Your task to perform on an android device: open app "Pluto TV - Live TV and Movies" (install if not already installed) and enter user name: "wools@yahoo.com" and password: "misplacing" Image 0: 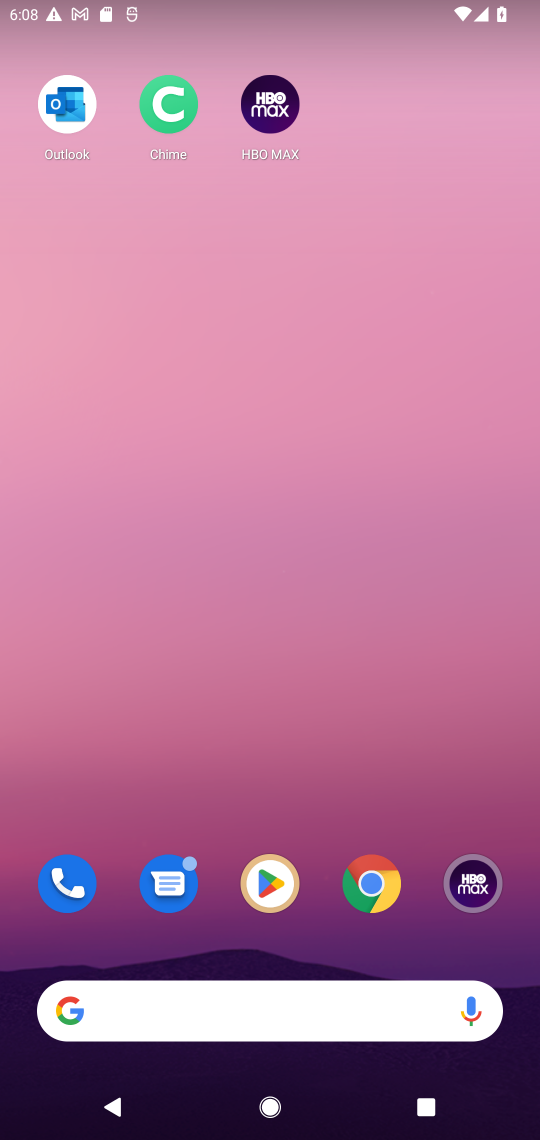
Step 0: click (264, 878)
Your task to perform on an android device: open app "Pluto TV - Live TV and Movies" (install if not already installed) and enter user name: "wools@yahoo.com" and password: "misplacing" Image 1: 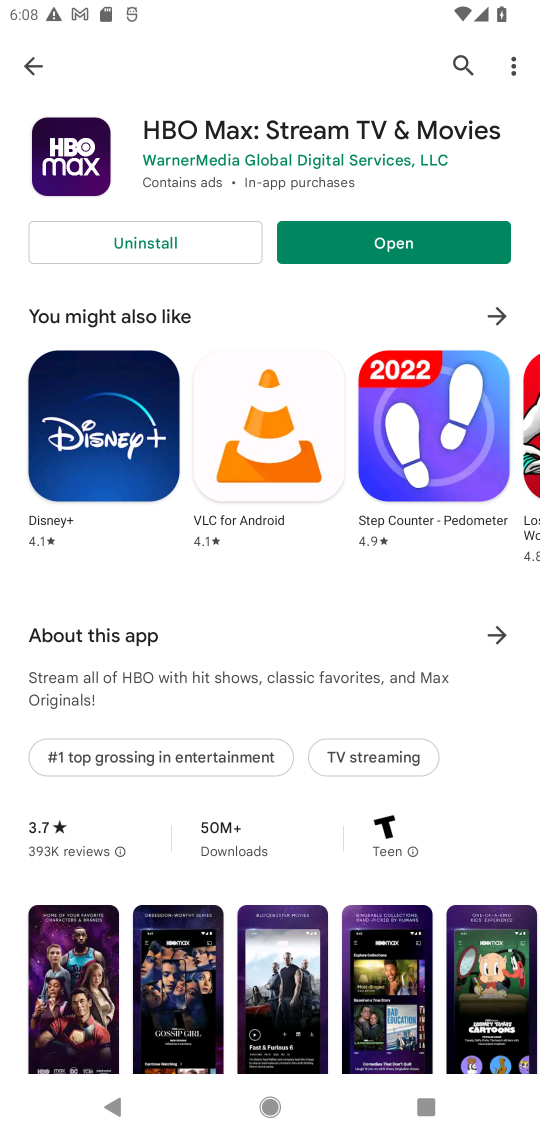
Step 1: click (494, 57)
Your task to perform on an android device: open app "Pluto TV - Live TV and Movies" (install if not already installed) and enter user name: "wools@yahoo.com" and password: "misplacing" Image 2: 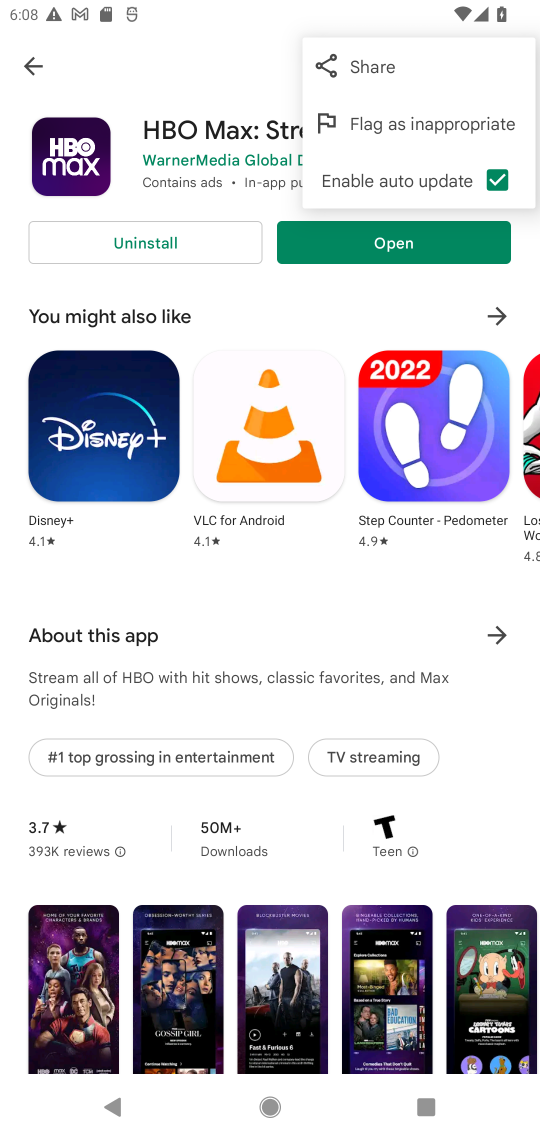
Step 2: click (220, 44)
Your task to perform on an android device: open app "Pluto TV - Live TV and Movies" (install if not already installed) and enter user name: "wools@yahoo.com" and password: "misplacing" Image 3: 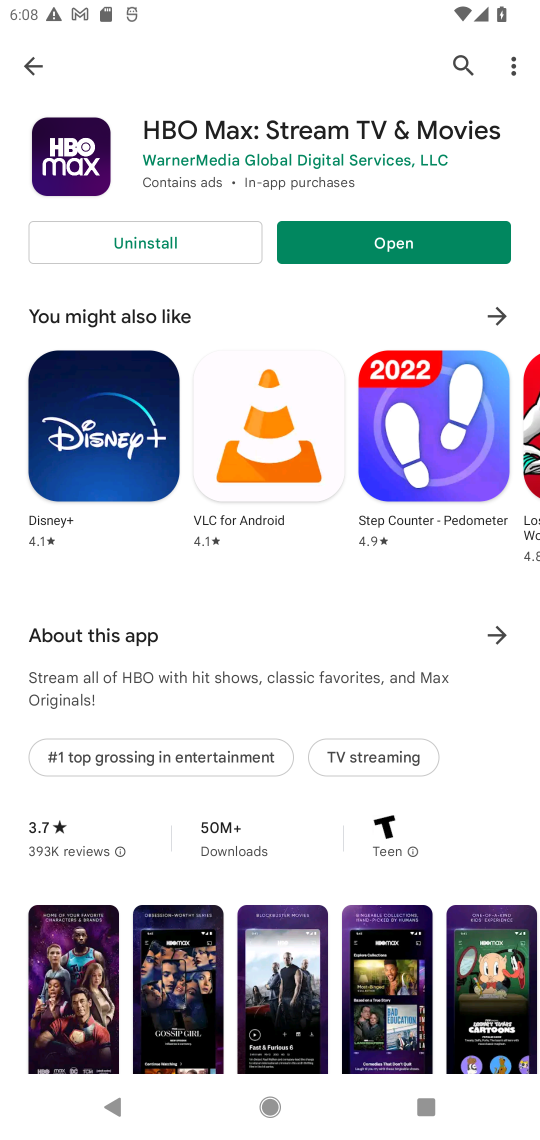
Step 3: click (467, 57)
Your task to perform on an android device: open app "Pluto TV - Live TV and Movies" (install if not already installed) and enter user name: "wools@yahoo.com" and password: "misplacing" Image 4: 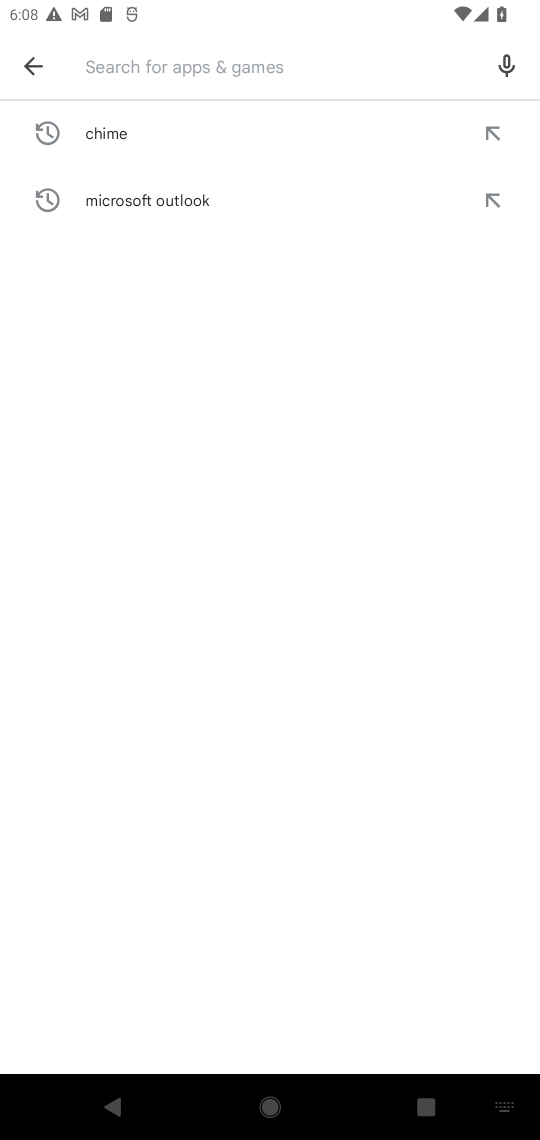
Step 4: type "Pluto TV - Live TV and Movies"
Your task to perform on an android device: open app "Pluto TV - Live TV and Movies" (install if not already installed) and enter user name: "wools@yahoo.com" and password: "misplacing" Image 5: 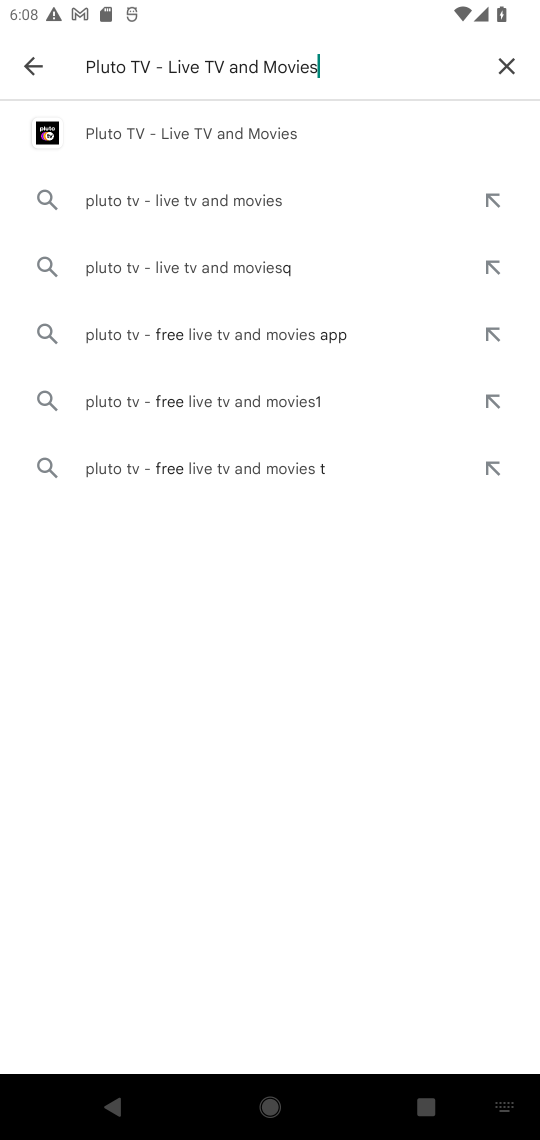
Step 5: click (138, 115)
Your task to perform on an android device: open app "Pluto TV - Live TV and Movies" (install if not already installed) and enter user name: "wools@yahoo.com" and password: "misplacing" Image 6: 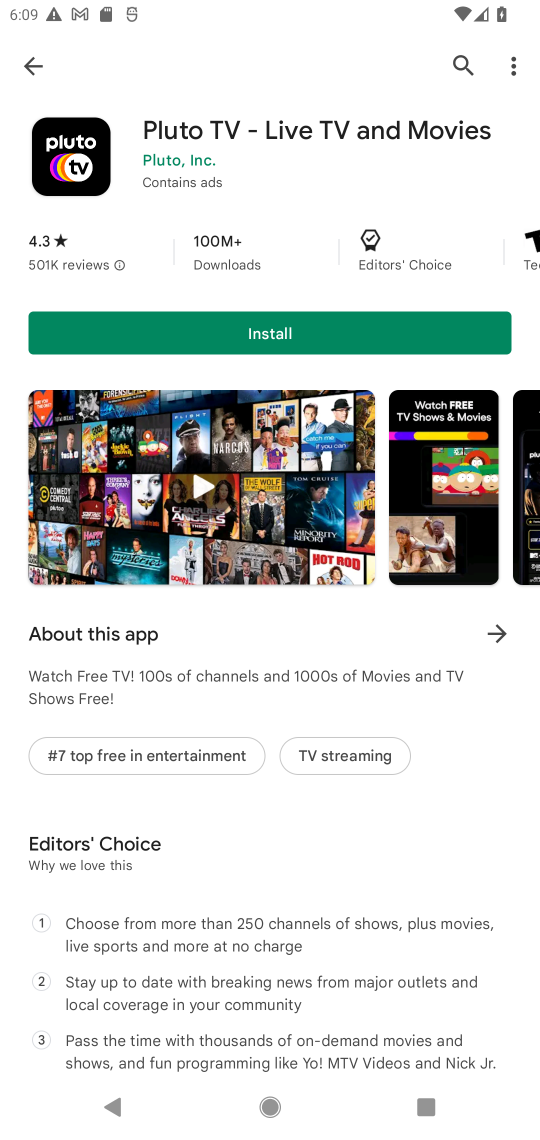
Step 6: click (261, 341)
Your task to perform on an android device: open app "Pluto TV - Live TV and Movies" (install if not already installed) and enter user name: "wools@yahoo.com" and password: "misplacing" Image 7: 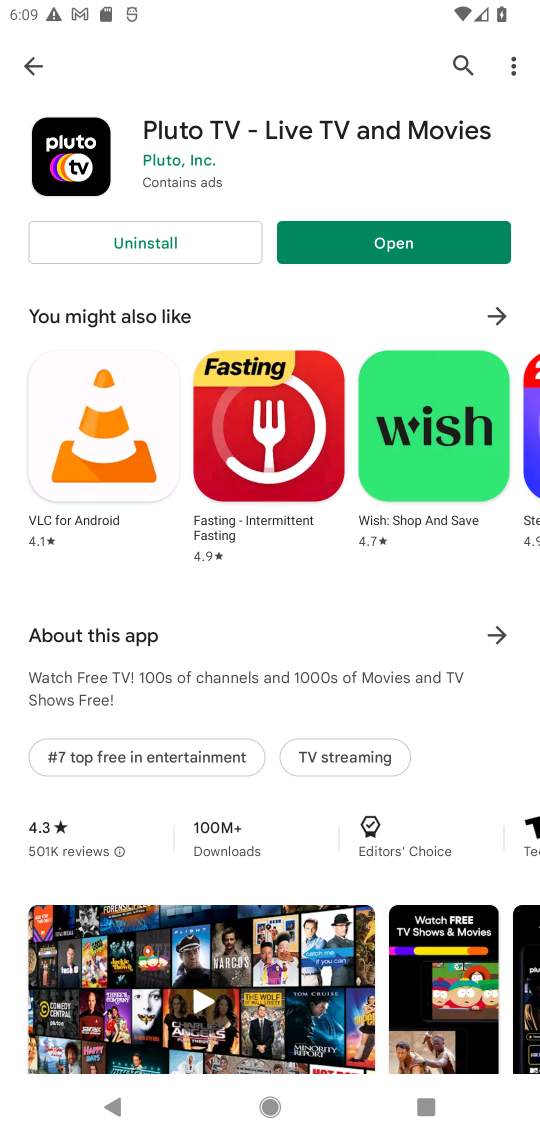
Step 7: click (379, 241)
Your task to perform on an android device: open app "Pluto TV - Live TV and Movies" (install if not already installed) and enter user name: "wools@yahoo.com" and password: "misplacing" Image 8: 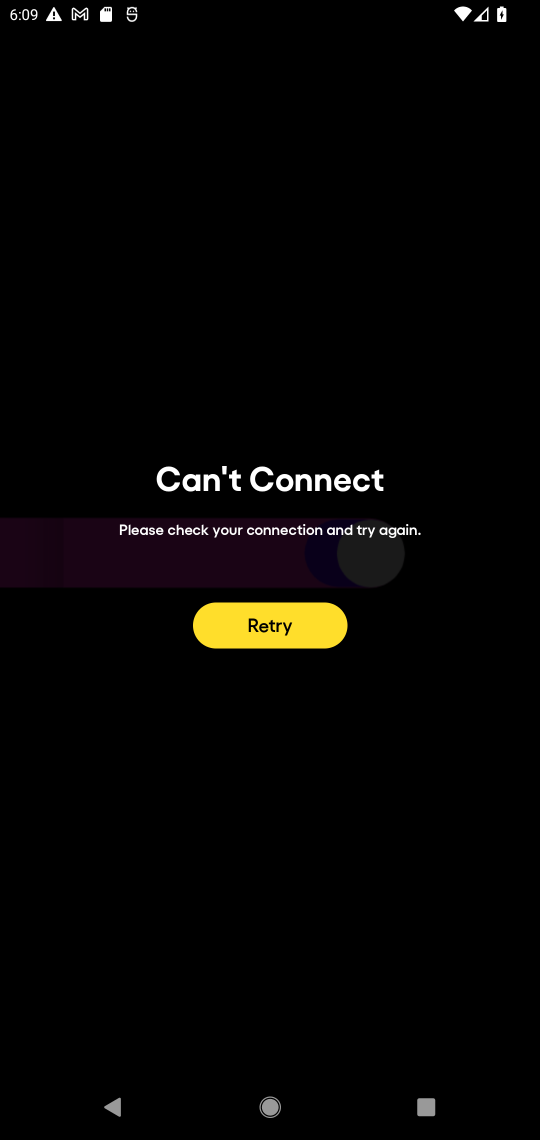
Step 8: task complete